Your task to perform on an android device: Open the stopwatch Image 0: 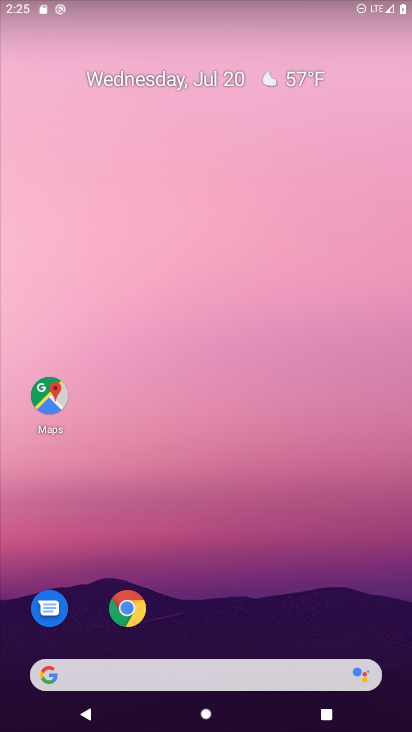
Step 0: drag from (241, 725) to (241, 209)
Your task to perform on an android device: Open the stopwatch Image 1: 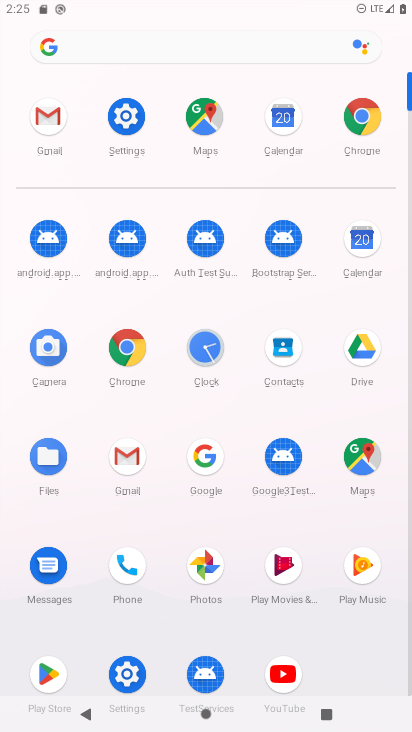
Step 1: click (204, 351)
Your task to perform on an android device: Open the stopwatch Image 2: 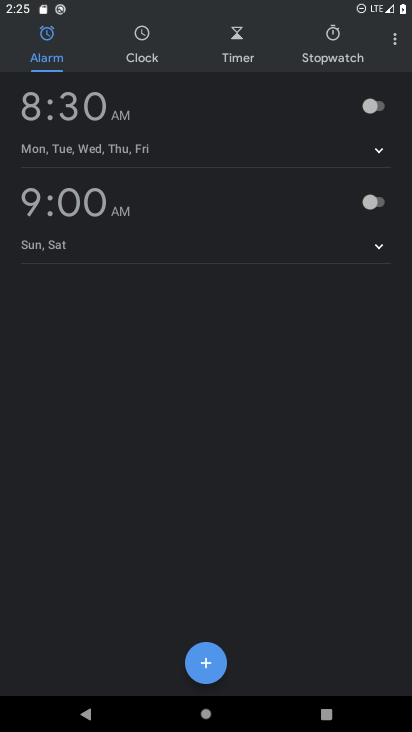
Step 2: click (338, 44)
Your task to perform on an android device: Open the stopwatch Image 3: 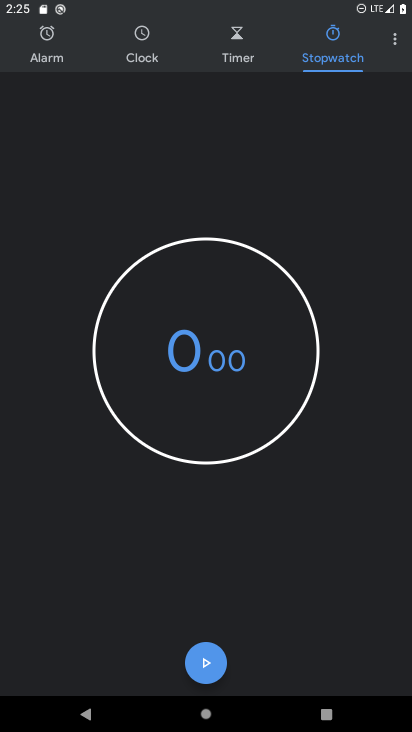
Step 3: task complete